Your task to perform on an android device: find snoozed emails in the gmail app Image 0: 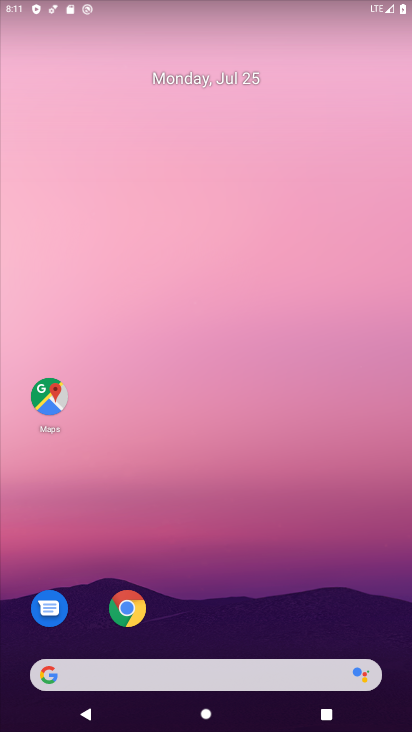
Step 0: drag from (230, 573) to (206, 281)
Your task to perform on an android device: find snoozed emails in the gmail app Image 1: 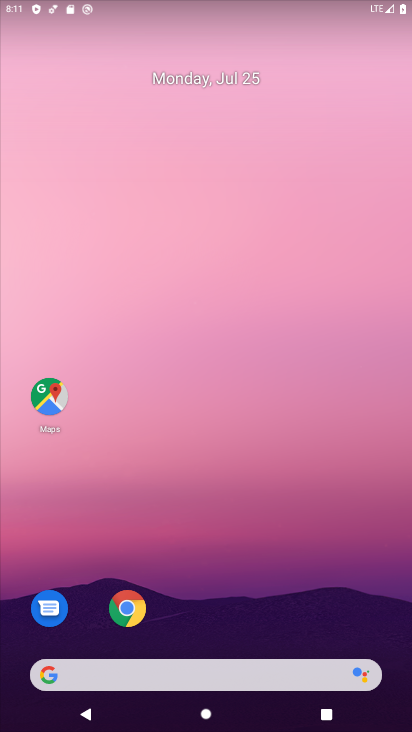
Step 1: drag from (218, 729) to (220, 117)
Your task to perform on an android device: find snoozed emails in the gmail app Image 2: 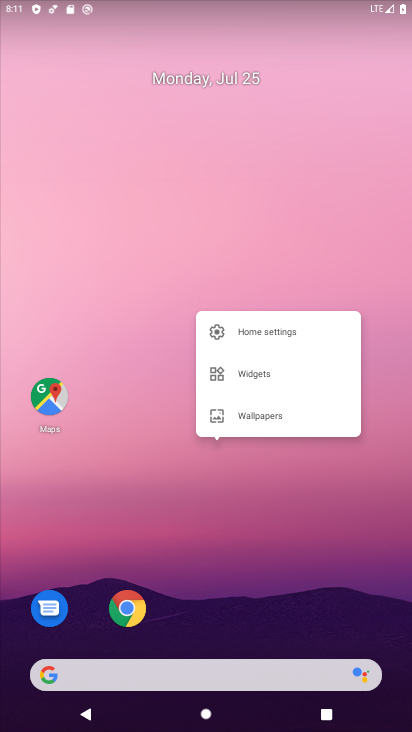
Step 2: click (296, 522)
Your task to perform on an android device: find snoozed emails in the gmail app Image 3: 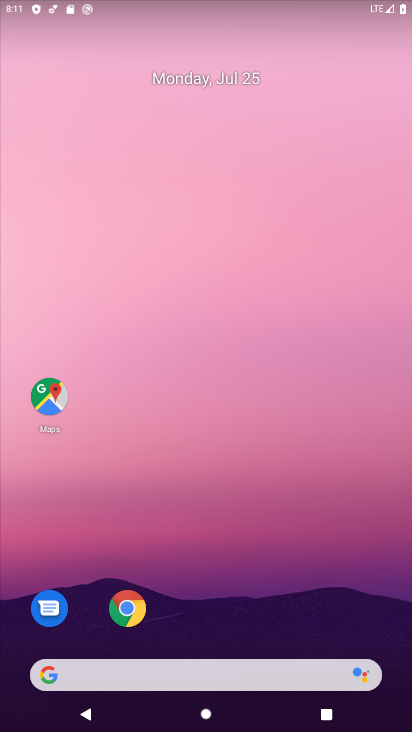
Step 3: drag from (246, 671) to (229, 294)
Your task to perform on an android device: find snoozed emails in the gmail app Image 4: 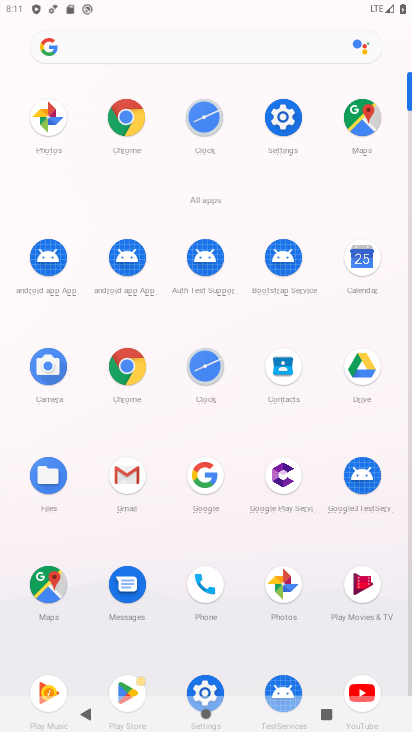
Step 4: click (124, 470)
Your task to perform on an android device: find snoozed emails in the gmail app Image 5: 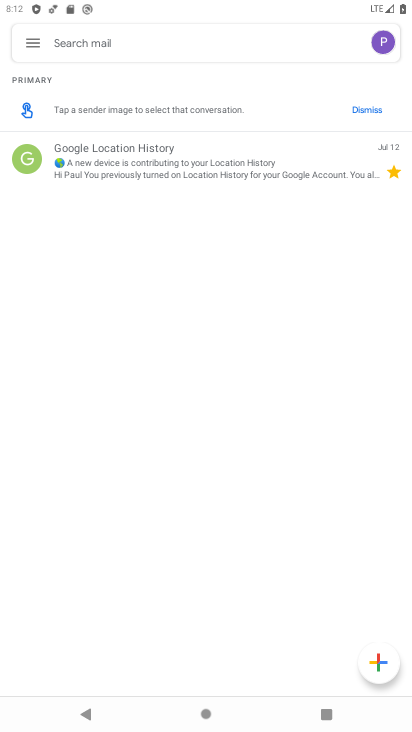
Step 5: click (32, 42)
Your task to perform on an android device: find snoozed emails in the gmail app Image 6: 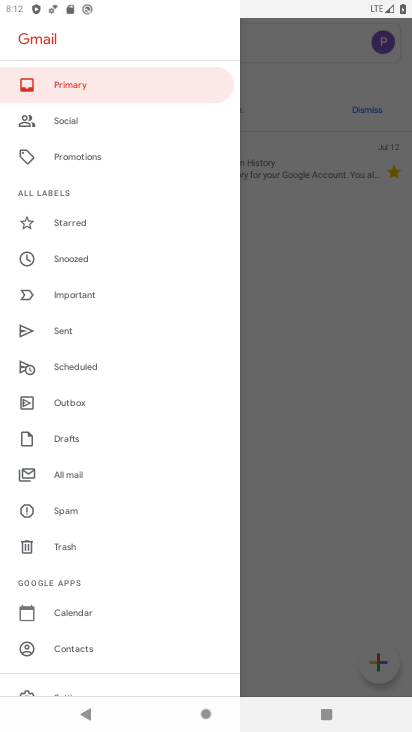
Step 6: click (70, 258)
Your task to perform on an android device: find snoozed emails in the gmail app Image 7: 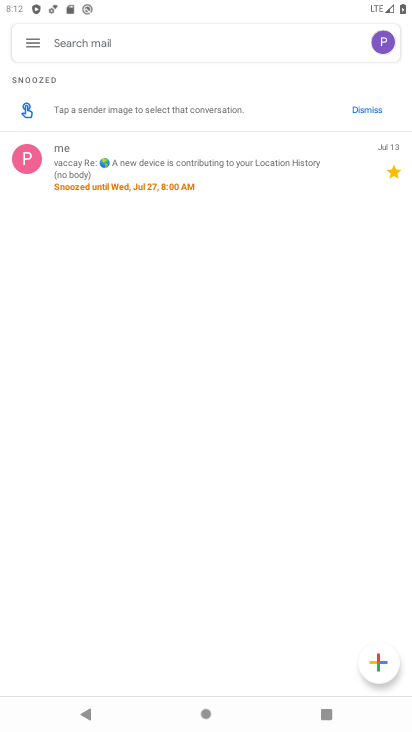
Step 7: task complete